Your task to perform on an android device: Go to privacy settings Image 0: 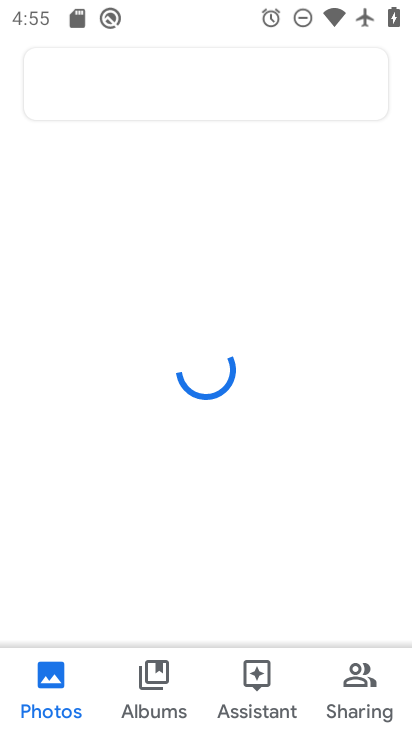
Step 0: press home button
Your task to perform on an android device: Go to privacy settings Image 1: 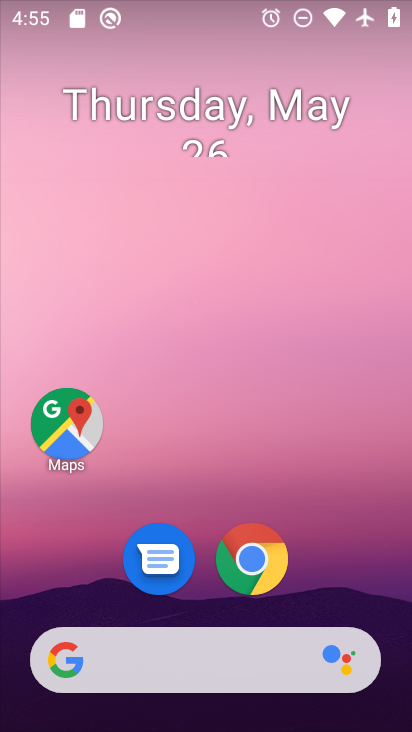
Step 1: drag from (345, 518) to (142, 10)
Your task to perform on an android device: Go to privacy settings Image 2: 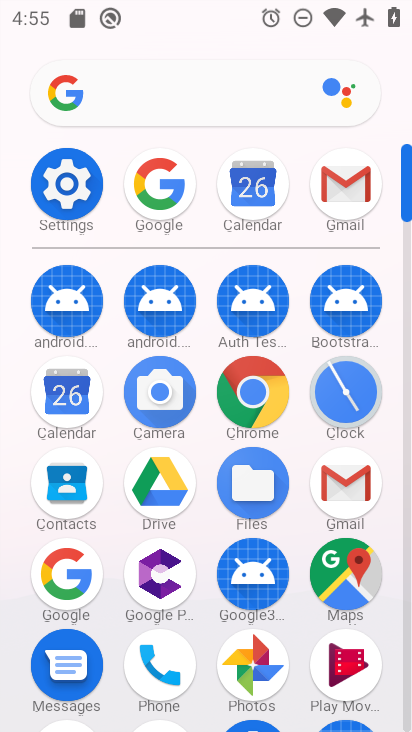
Step 2: click (67, 188)
Your task to perform on an android device: Go to privacy settings Image 3: 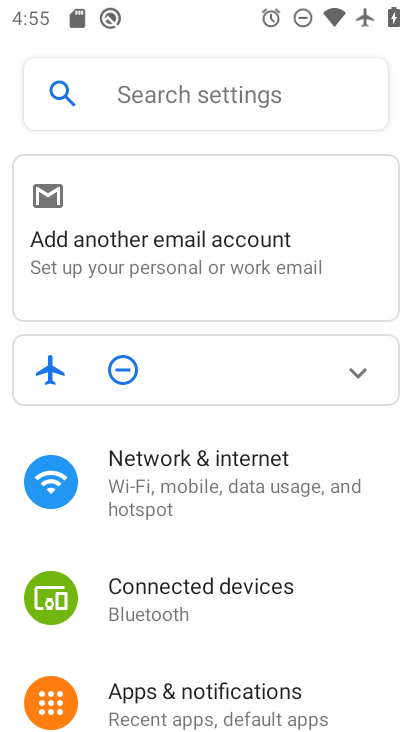
Step 3: drag from (302, 312) to (265, 69)
Your task to perform on an android device: Go to privacy settings Image 4: 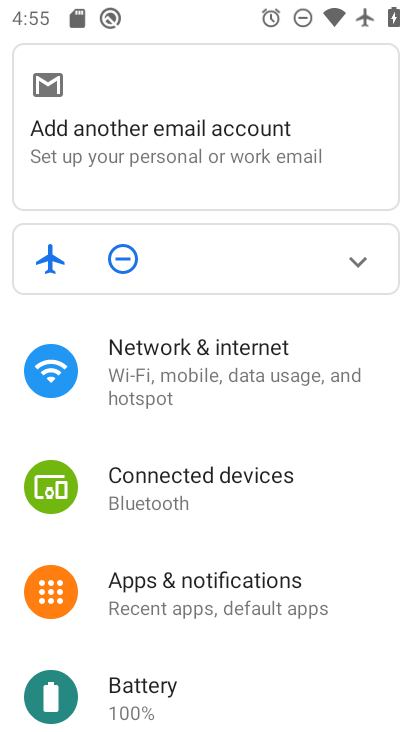
Step 4: drag from (252, 601) to (231, 115)
Your task to perform on an android device: Go to privacy settings Image 5: 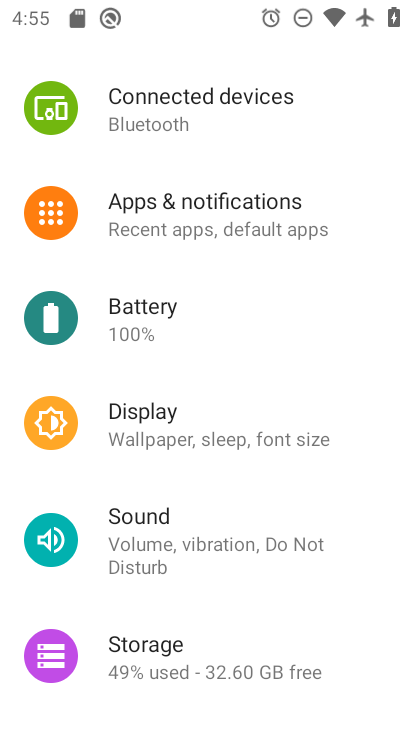
Step 5: drag from (242, 508) to (248, 148)
Your task to perform on an android device: Go to privacy settings Image 6: 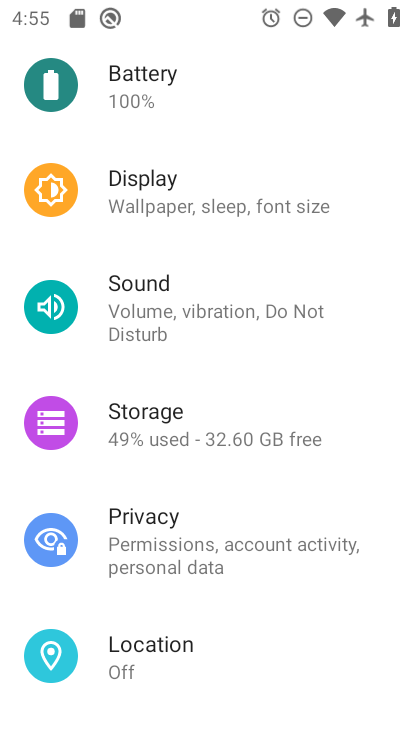
Step 6: click (247, 516)
Your task to perform on an android device: Go to privacy settings Image 7: 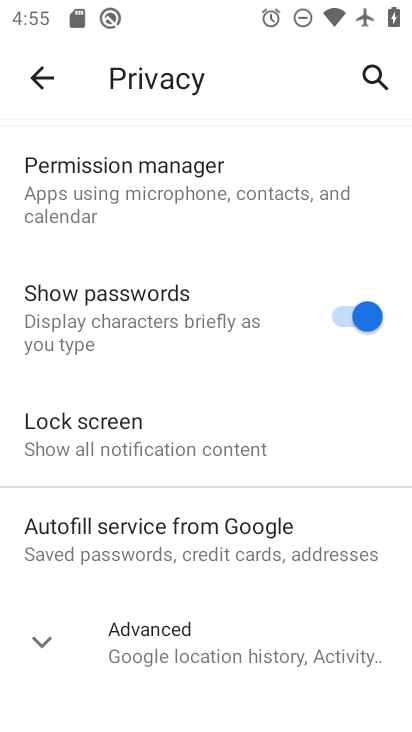
Step 7: task complete